Your task to perform on an android device: turn off data saver in the chrome app Image 0: 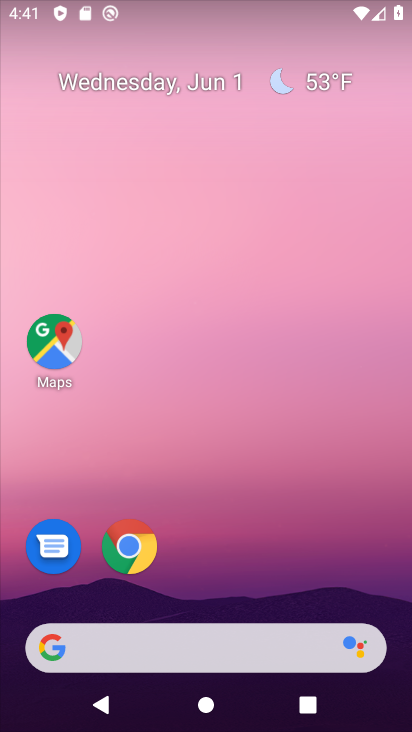
Step 0: drag from (270, 519) to (211, 13)
Your task to perform on an android device: turn off data saver in the chrome app Image 1: 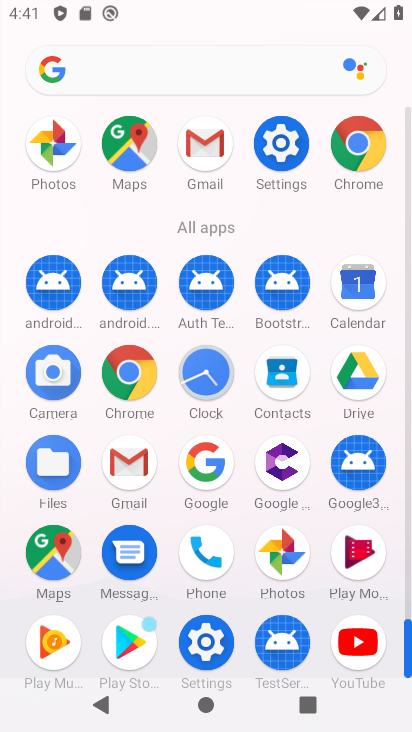
Step 1: drag from (5, 544) to (5, 191)
Your task to perform on an android device: turn off data saver in the chrome app Image 2: 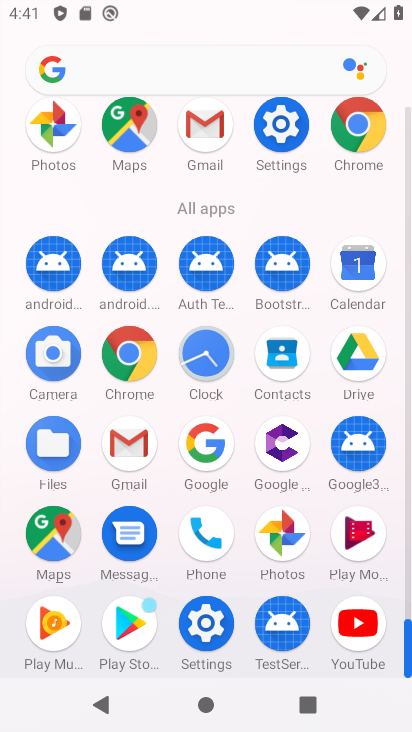
Step 2: click (128, 347)
Your task to perform on an android device: turn off data saver in the chrome app Image 3: 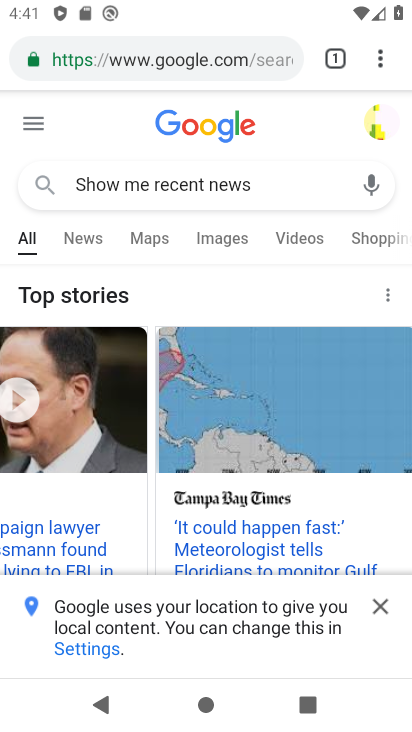
Step 3: drag from (377, 56) to (219, 558)
Your task to perform on an android device: turn off data saver in the chrome app Image 4: 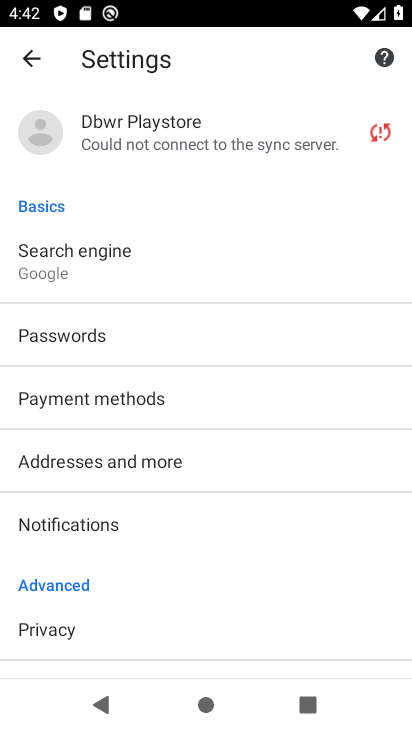
Step 4: drag from (200, 531) to (200, 150)
Your task to perform on an android device: turn off data saver in the chrome app Image 5: 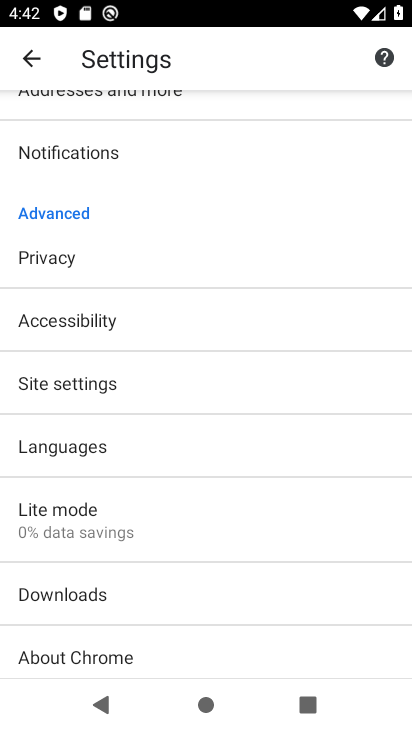
Step 5: drag from (196, 560) to (218, 193)
Your task to perform on an android device: turn off data saver in the chrome app Image 6: 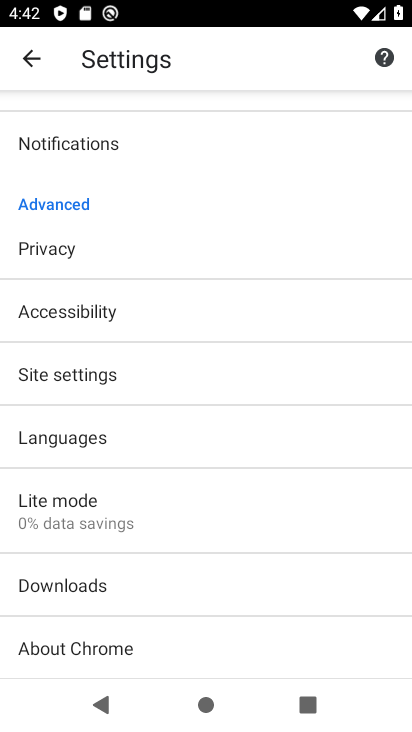
Step 6: click (129, 370)
Your task to perform on an android device: turn off data saver in the chrome app Image 7: 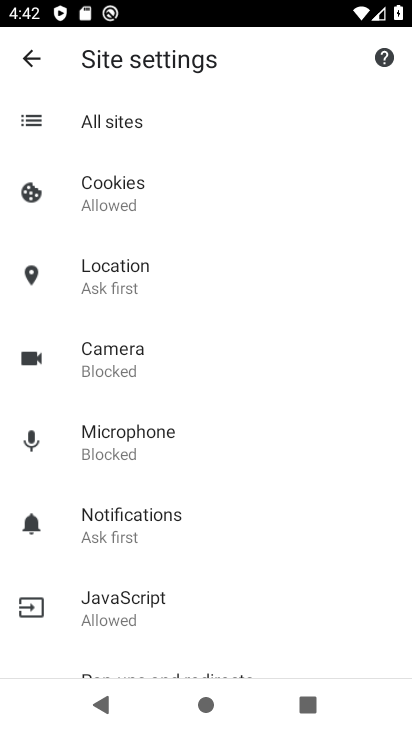
Step 7: drag from (215, 602) to (270, 154)
Your task to perform on an android device: turn off data saver in the chrome app Image 8: 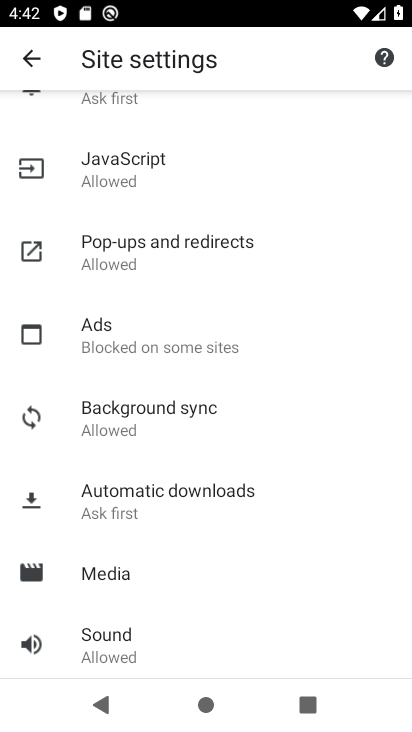
Step 8: drag from (178, 600) to (210, 138)
Your task to perform on an android device: turn off data saver in the chrome app Image 9: 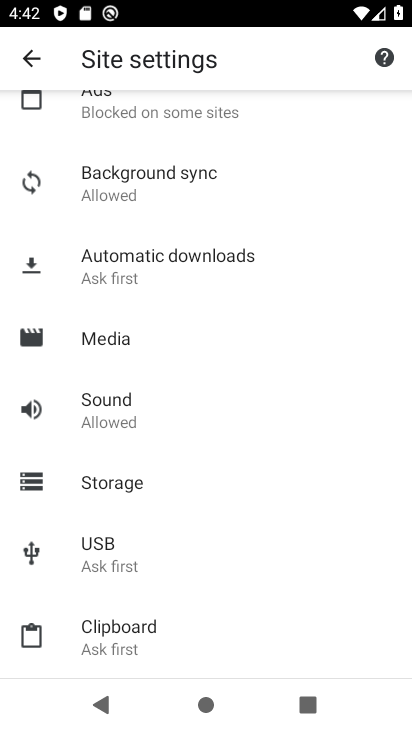
Step 9: click (43, 56)
Your task to perform on an android device: turn off data saver in the chrome app Image 10: 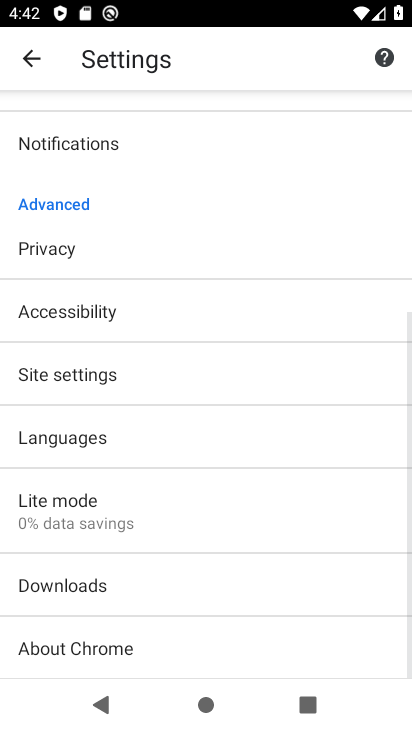
Step 10: click (154, 520)
Your task to perform on an android device: turn off data saver in the chrome app Image 11: 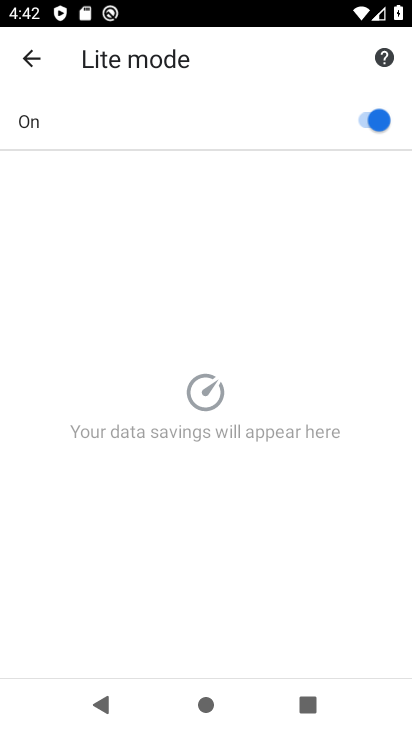
Step 11: click (369, 123)
Your task to perform on an android device: turn off data saver in the chrome app Image 12: 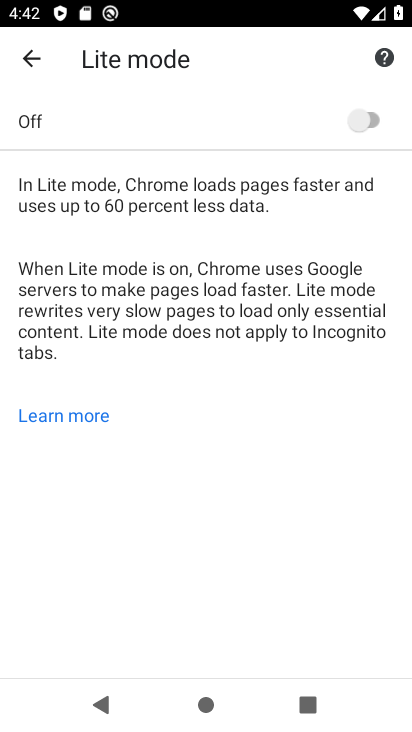
Step 12: task complete